Your task to perform on an android device: Open Android settings Image 0: 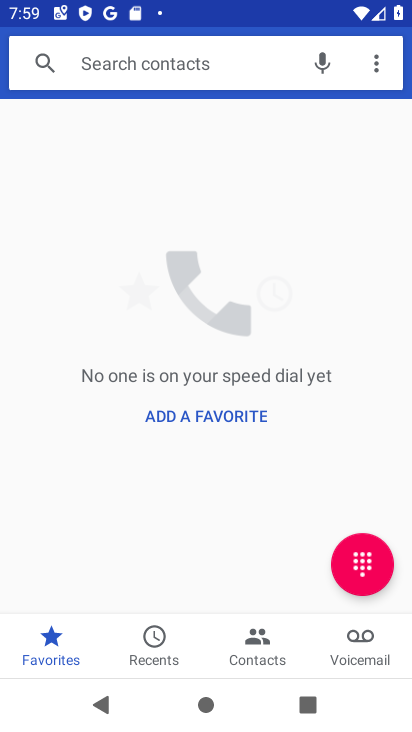
Step 0: press home button
Your task to perform on an android device: Open Android settings Image 1: 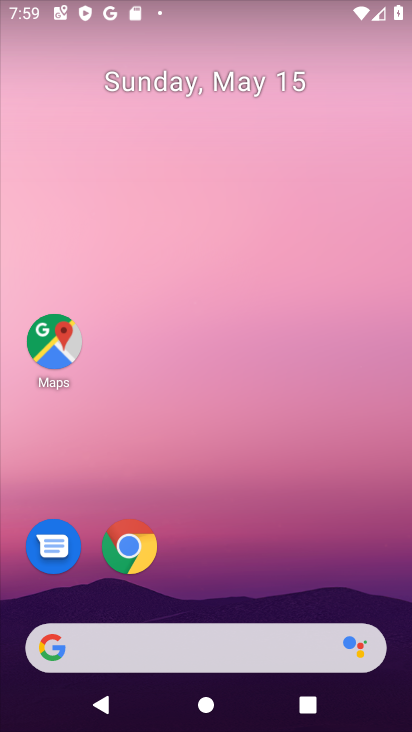
Step 1: drag from (223, 499) to (279, 22)
Your task to perform on an android device: Open Android settings Image 2: 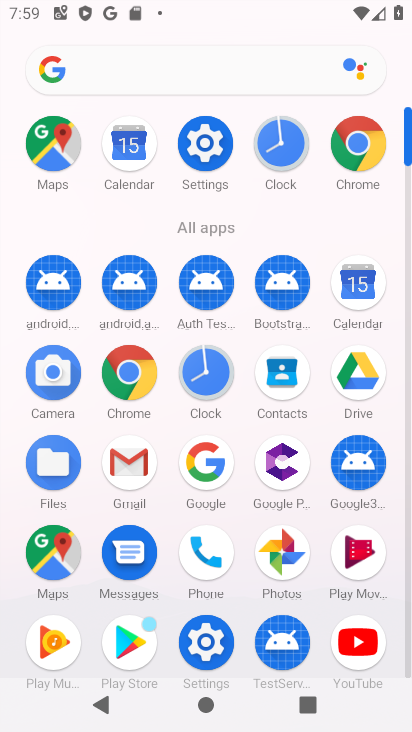
Step 2: click (207, 127)
Your task to perform on an android device: Open Android settings Image 3: 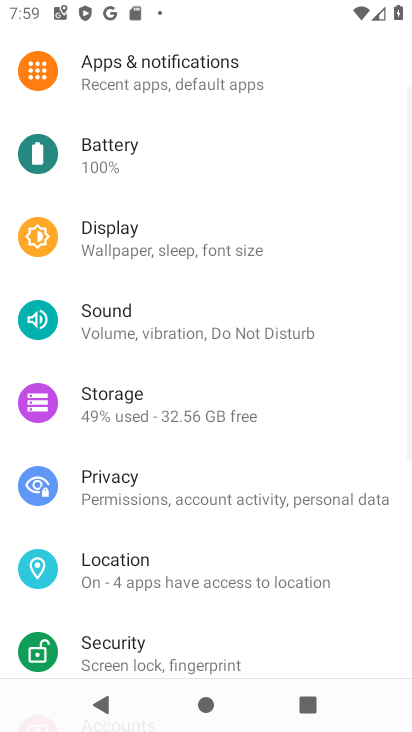
Step 3: drag from (209, 455) to (239, 4)
Your task to perform on an android device: Open Android settings Image 4: 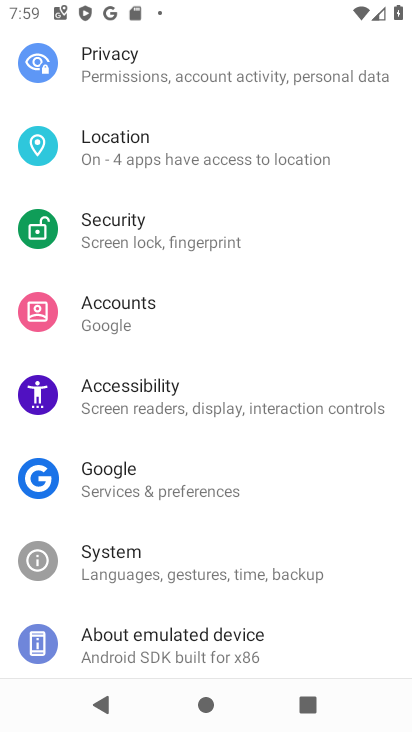
Step 4: click (165, 644)
Your task to perform on an android device: Open Android settings Image 5: 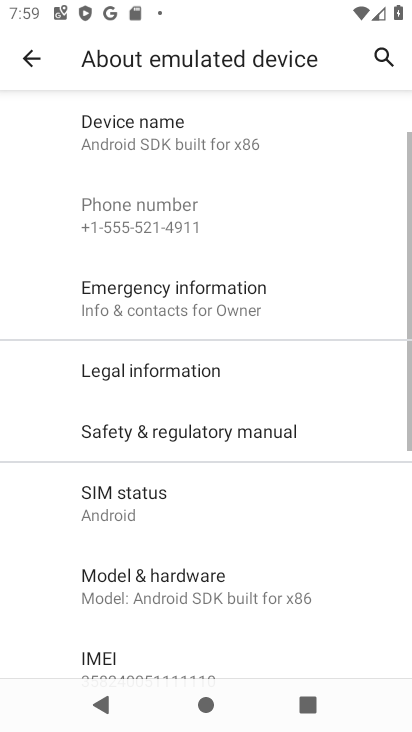
Step 5: task complete